Your task to perform on an android device: search for starred emails in the gmail app Image 0: 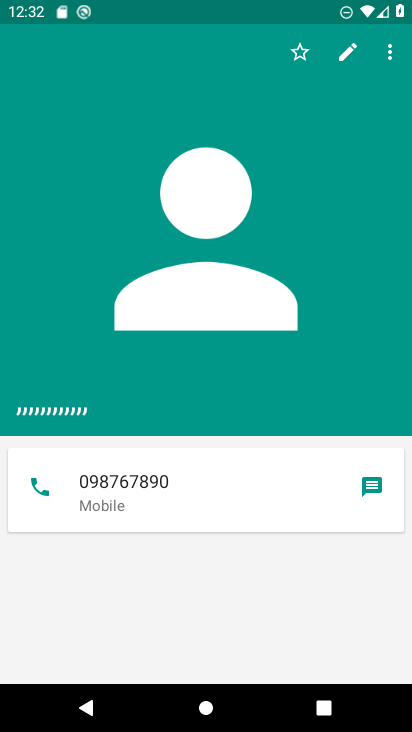
Step 0: press home button
Your task to perform on an android device: search for starred emails in the gmail app Image 1: 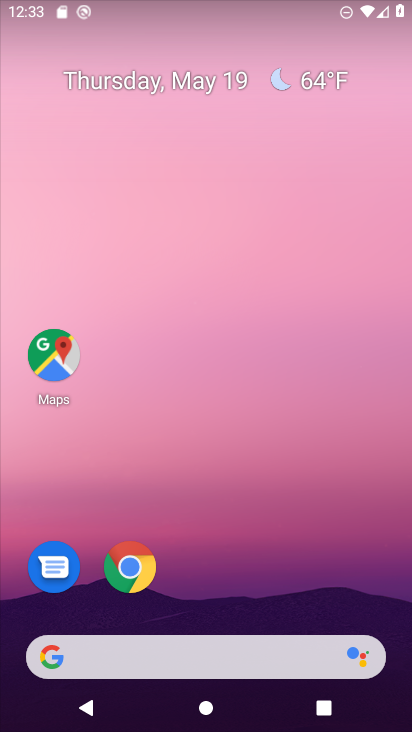
Step 1: drag from (208, 560) to (264, 163)
Your task to perform on an android device: search for starred emails in the gmail app Image 2: 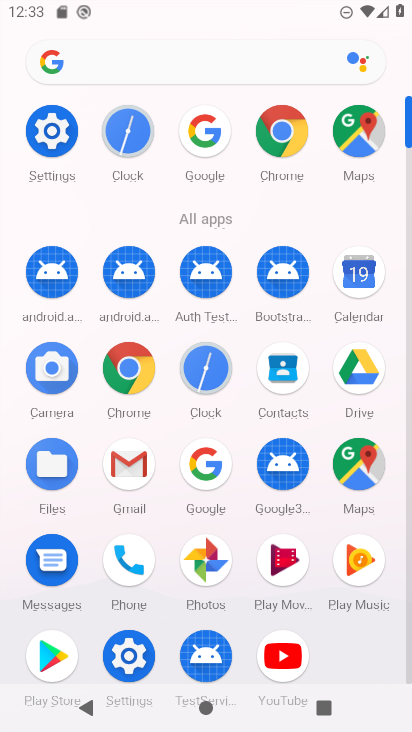
Step 2: click (134, 475)
Your task to perform on an android device: search for starred emails in the gmail app Image 3: 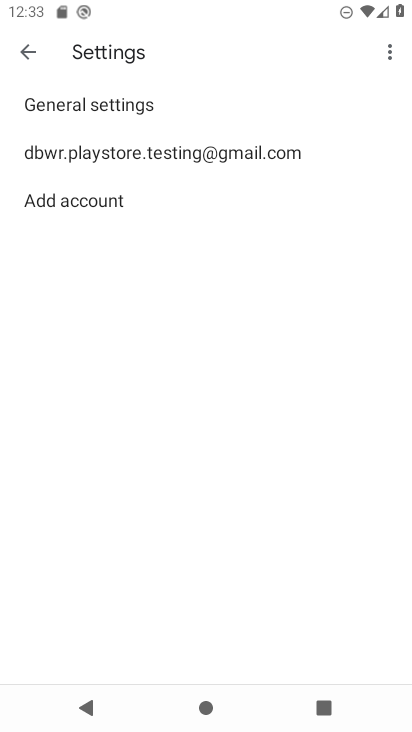
Step 3: click (246, 155)
Your task to perform on an android device: search for starred emails in the gmail app Image 4: 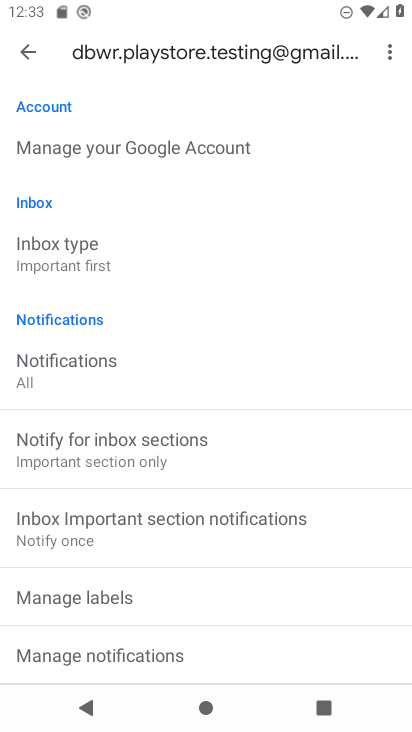
Step 4: press back button
Your task to perform on an android device: search for starred emails in the gmail app Image 5: 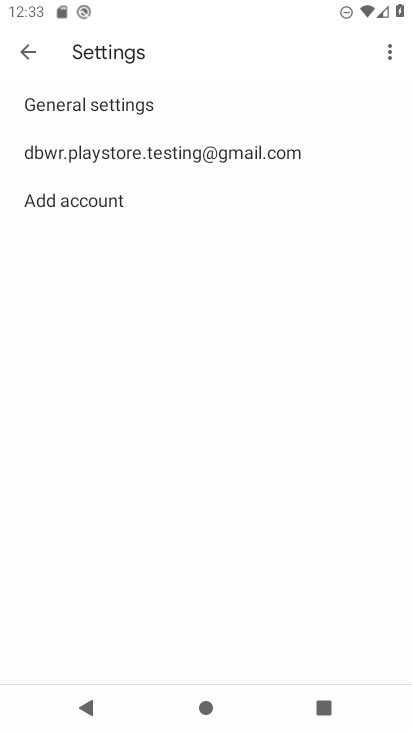
Step 5: press back button
Your task to perform on an android device: search for starred emails in the gmail app Image 6: 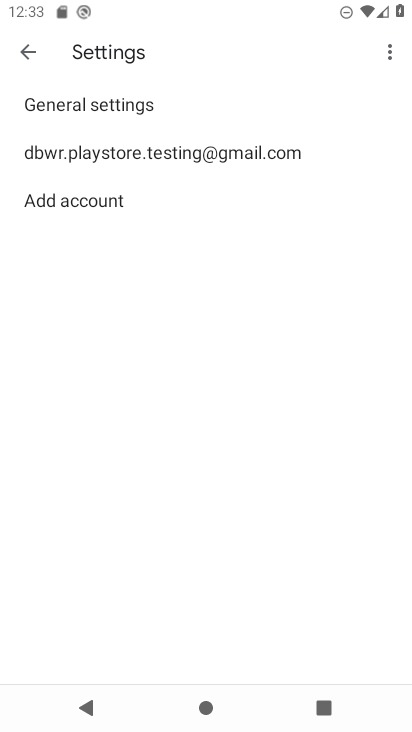
Step 6: press back button
Your task to perform on an android device: search for starred emails in the gmail app Image 7: 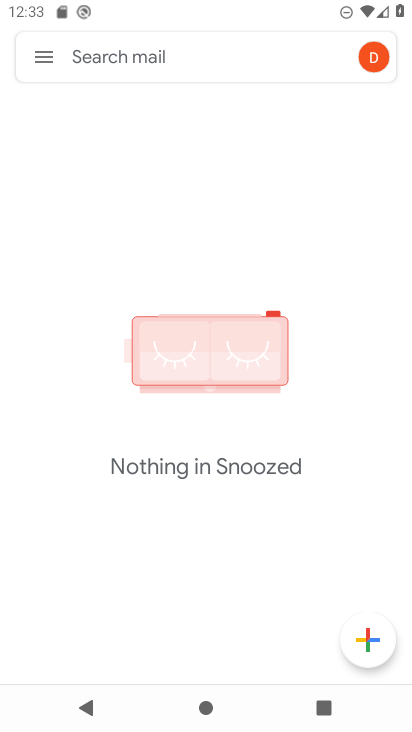
Step 7: click (43, 64)
Your task to perform on an android device: search for starred emails in the gmail app Image 8: 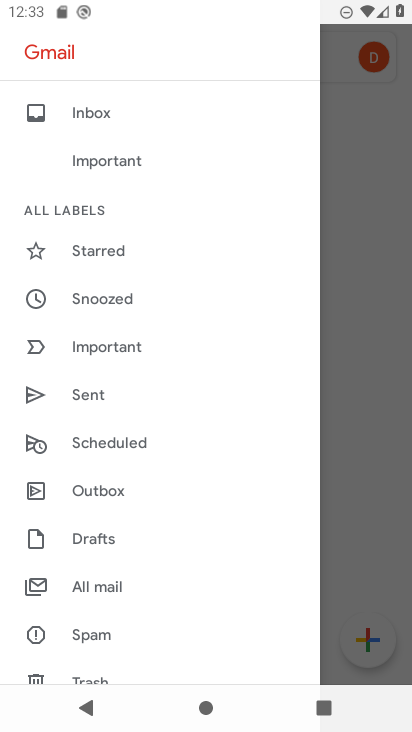
Step 8: click (94, 252)
Your task to perform on an android device: search for starred emails in the gmail app Image 9: 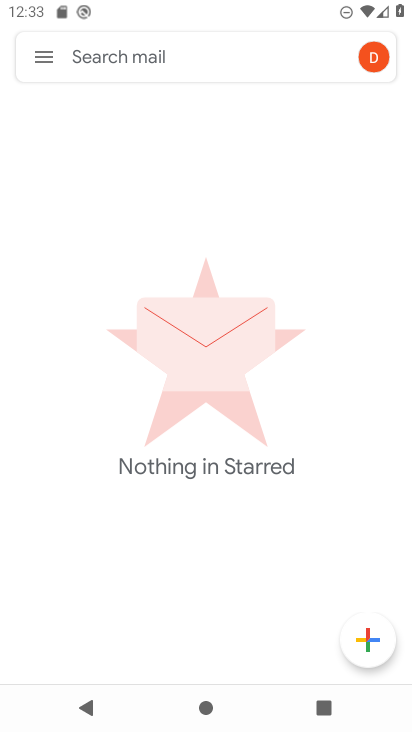
Step 9: task complete